Your task to perform on an android device: Open Wikipedia Image 0: 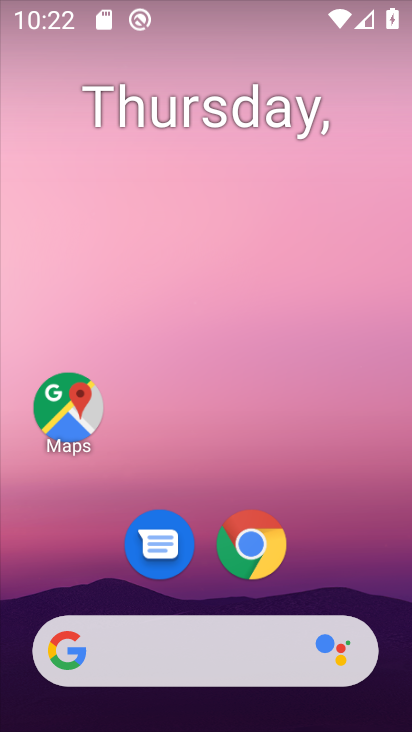
Step 0: click (252, 560)
Your task to perform on an android device: Open Wikipedia Image 1: 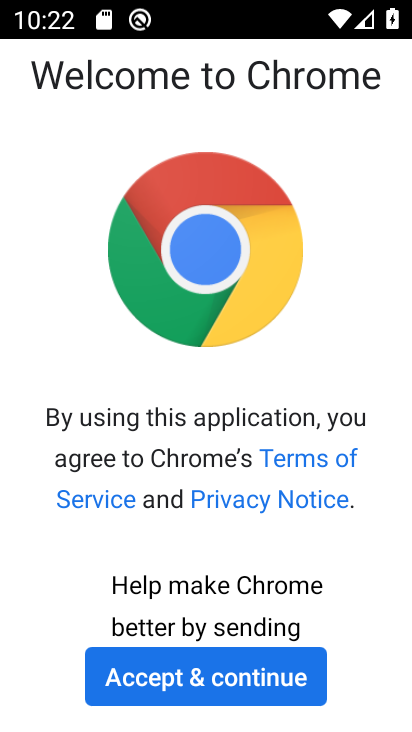
Step 1: click (233, 692)
Your task to perform on an android device: Open Wikipedia Image 2: 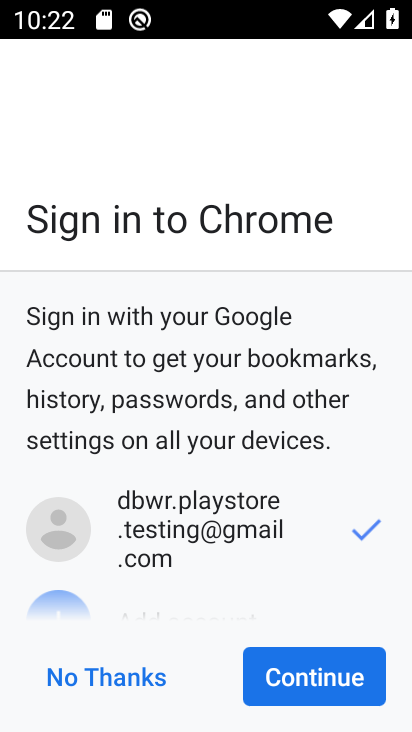
Step 2: click (325, 671)
Your task to perform on an android device: Open Wikipedia Image 3: 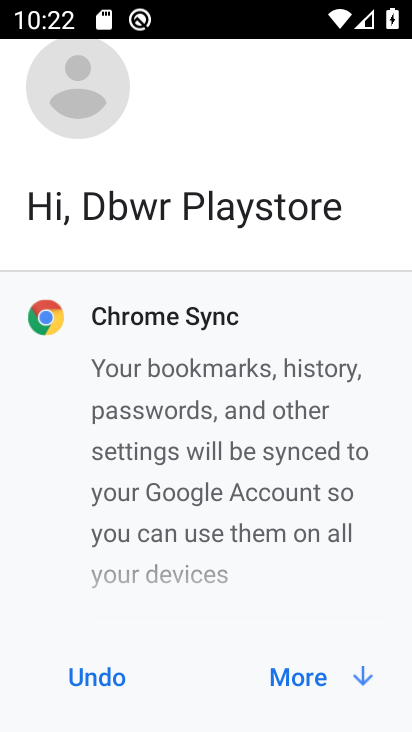
Step 3: click (323, 671)
Your task to perform on an android device: Open Wikipedia Image 4: 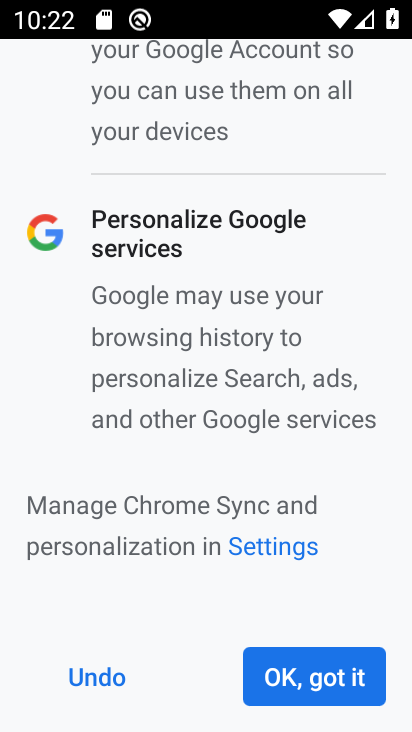
Step 4: click (322, 671)
Your task to perform on an android device: Open Wikipedia Image 5: 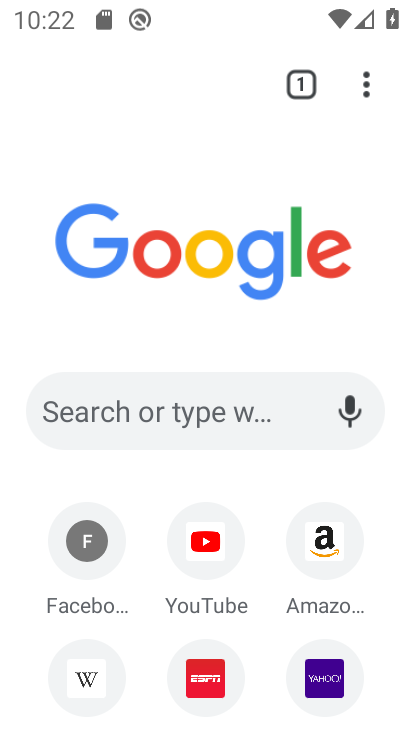
Step 5: click (94, 669)
Your task to perform on an android device: Open Wikipedia Image 6: 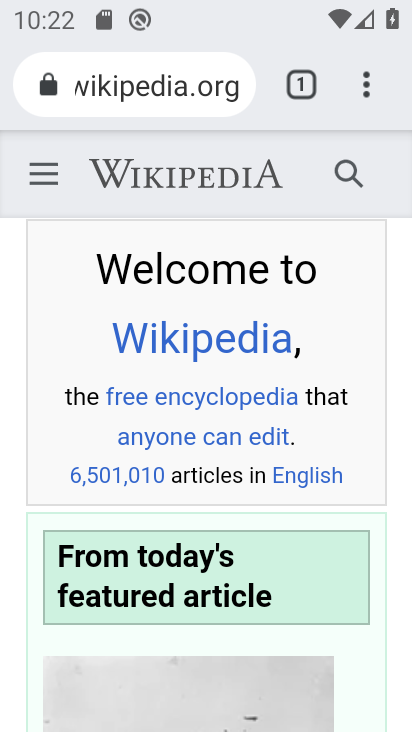
Step 6: task complete